Your task to perform on an android device: see sites visited before in the chrome app Image 0: 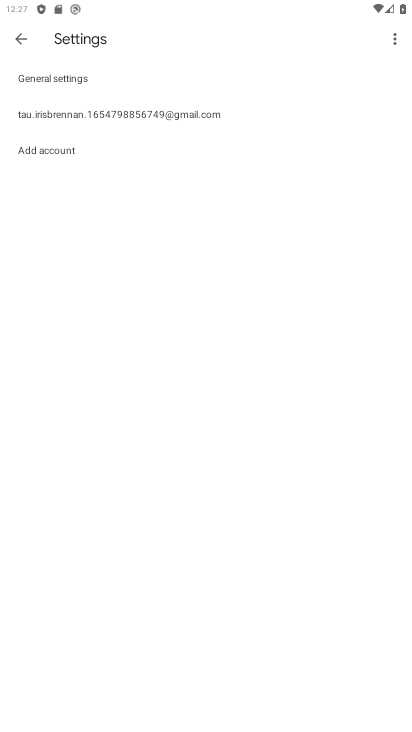
Step 0: press home button
Your task to perform on an android device: see sites visited before in the chrome app Image 1: 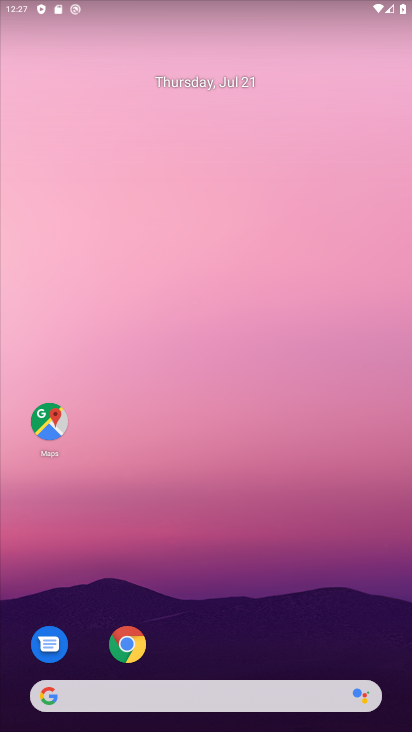
Step 1: drag from (339, 597) to (356, 170)
Your task to perform on an android device: see sites visited before in the chrome app Image 2: 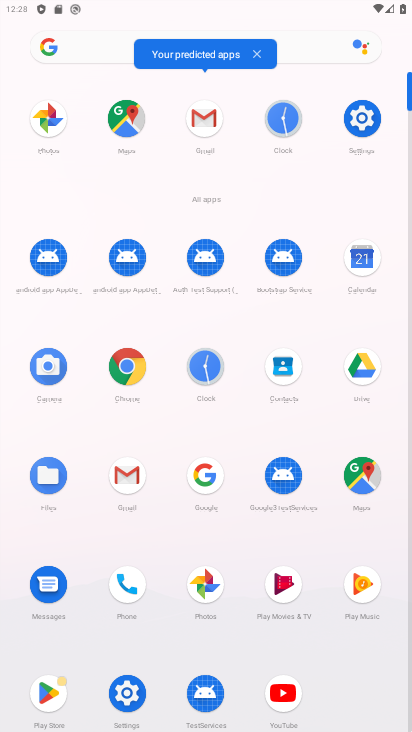
Step 2: click (134, 378)
Your task to perform on an android device: see sites visited before in the chrome app Image 3: 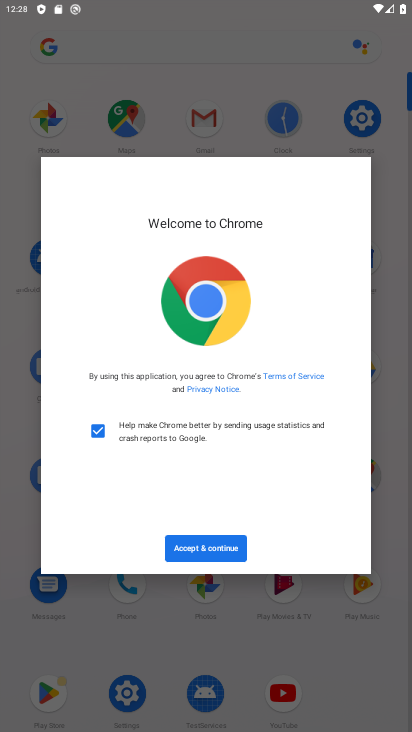
Step 3: click (210, 547)
Your task to perform on an android device: see sites visited before in the chrome app Image 4: 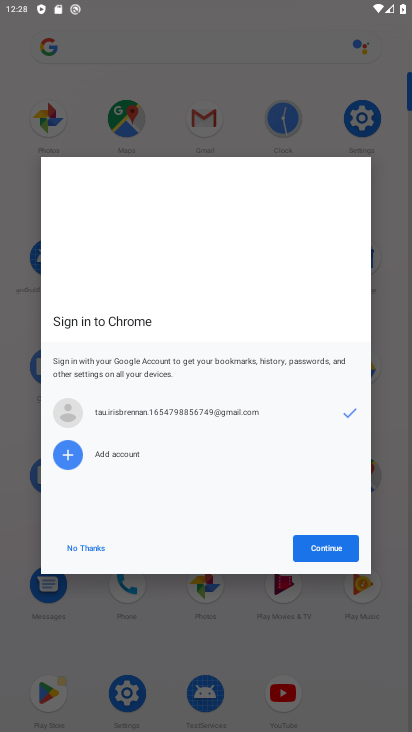
Step 4: click (309, 542)
Your task to perform on an android device: see sites visited before in the chrome app Image 5: 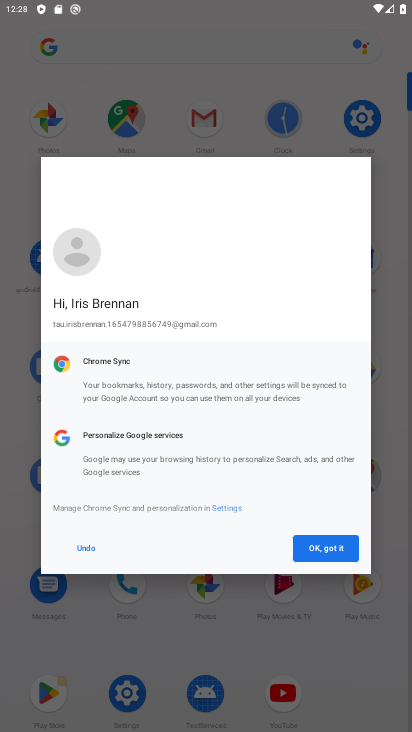
Step 5: click (323, 552)
Your task to perform on an android device: see sites visited before in the chrome app Image 6: 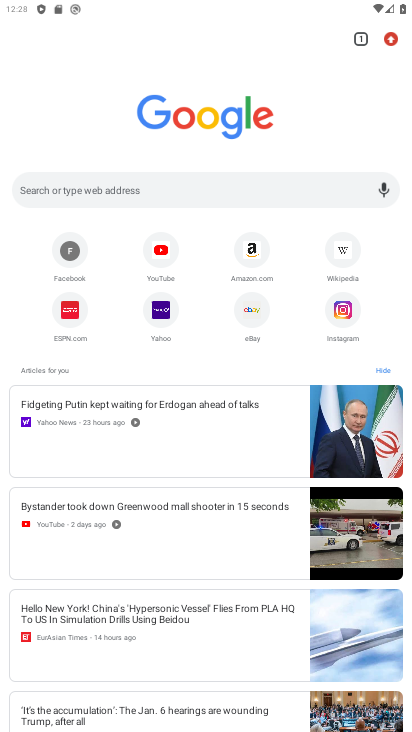
Step 6: click (392, 39)
Your task to perform on an android device: see sites visited before in the chrome app Image 7: 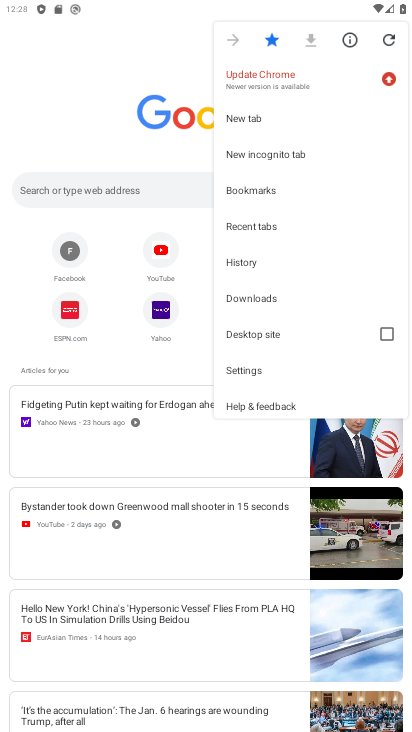
Step 7: click (271, 264)
Your task to perform on an android device: see sites visited before in the chrome app Image 8: 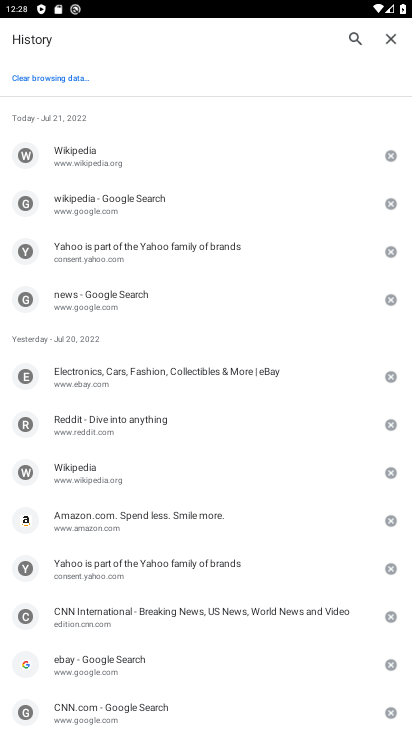
Step 8: task complete